Your task to perform on an android device: Open the web browser Image 0: 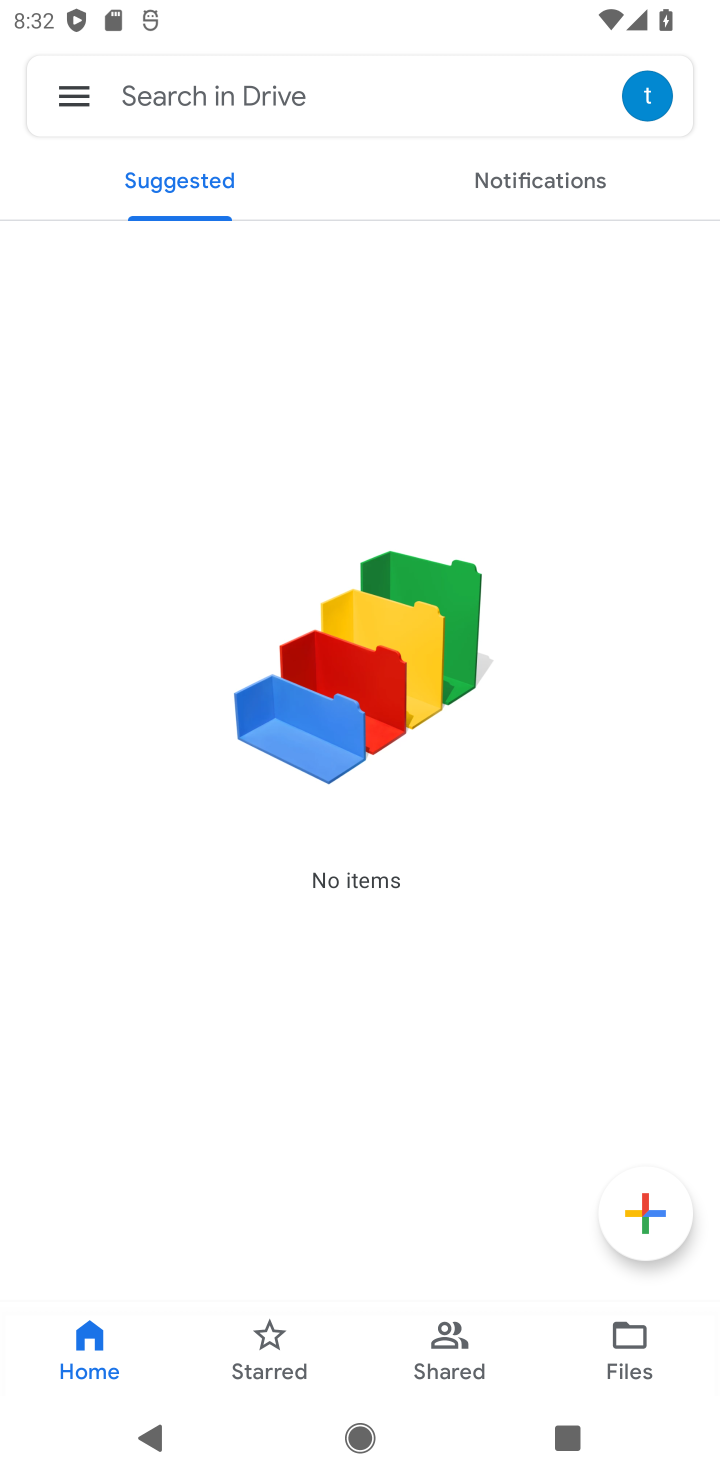
Step 0: press home button
Your task to perform on an android device: Open the web browser Image 1: 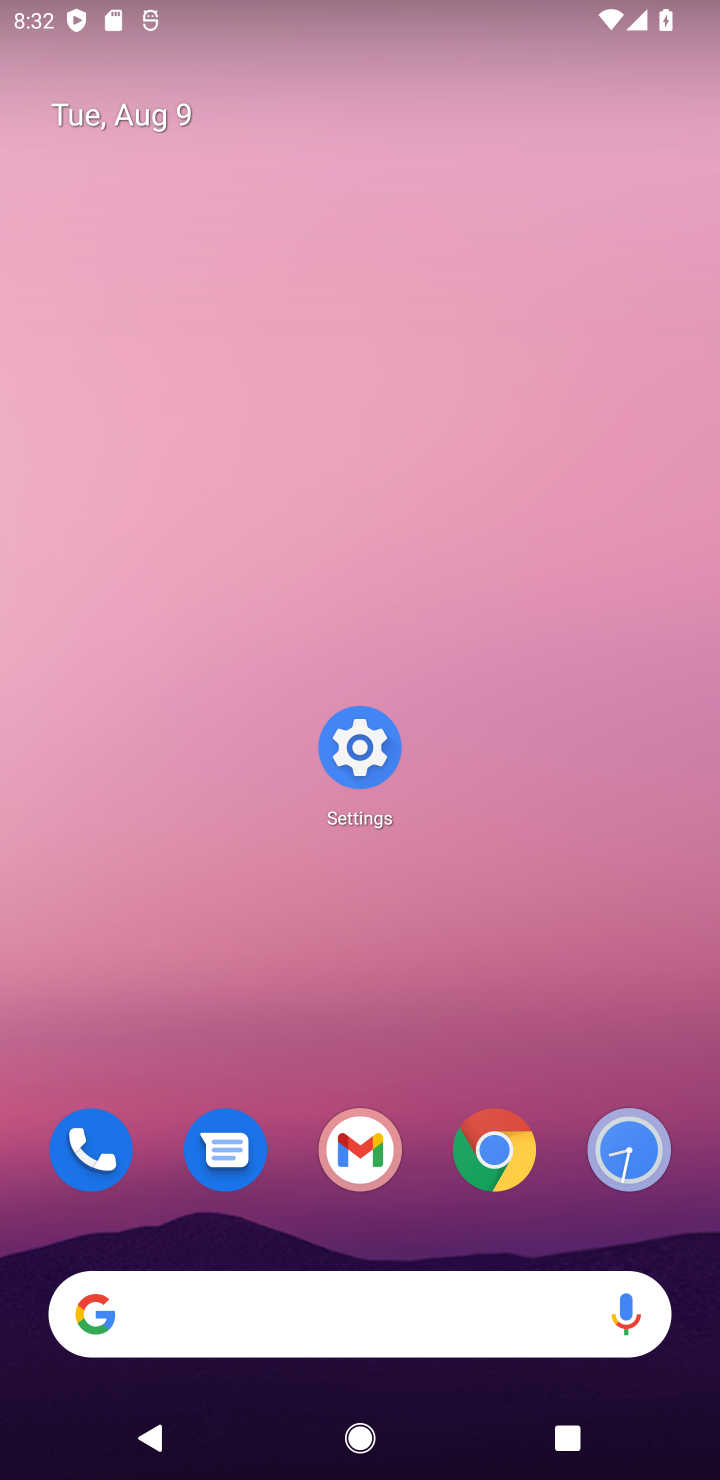
Step 1: click (500, 1164)
Your task to perform on an android device: Open the web browser Image 2: 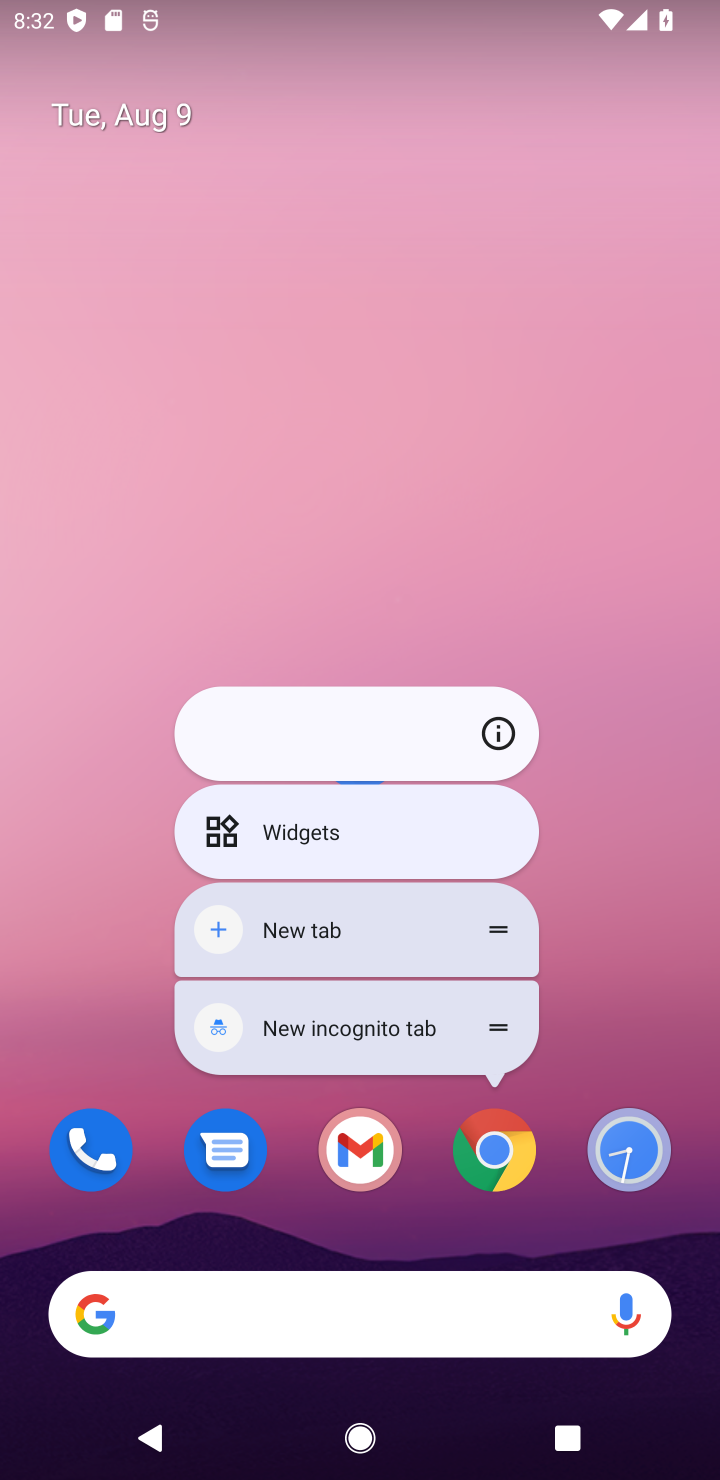
Step 2: click (496, 1150)
Your task to perform on an android device: Open the web browser Image 3: 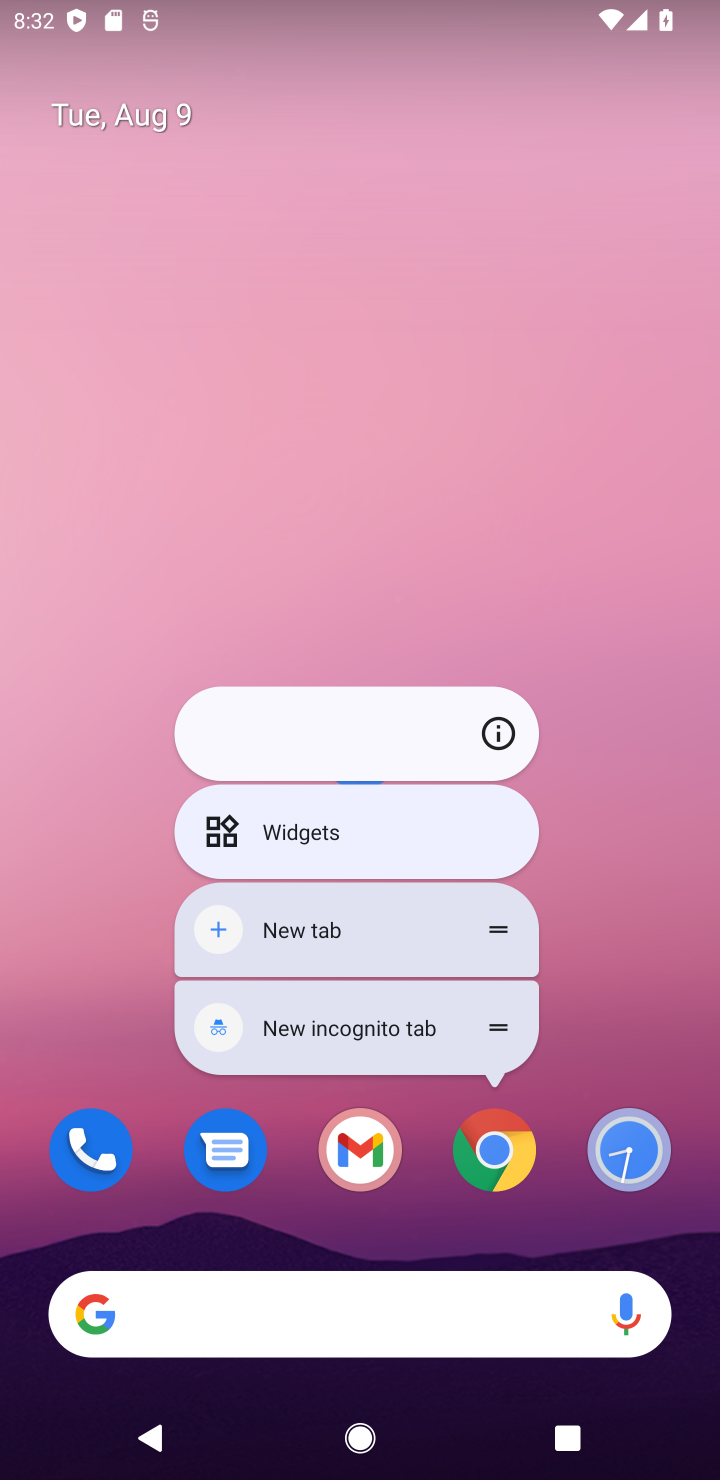
Step 3: click (496, 1152)
Your task to perform on an android device: Open the web browser Image 4: 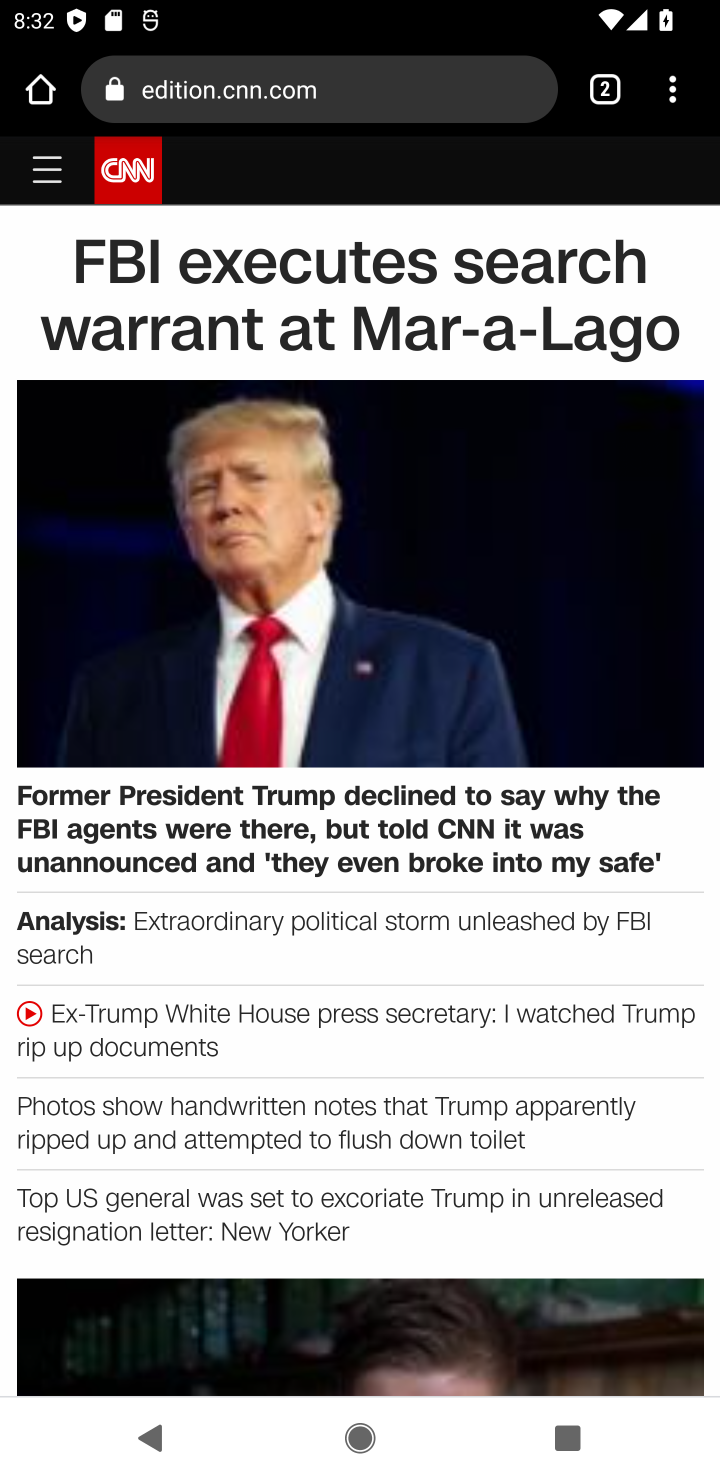
Step 4: task complete